Your task to perform on an android device: toggle javascript in the chrome app Image 0: 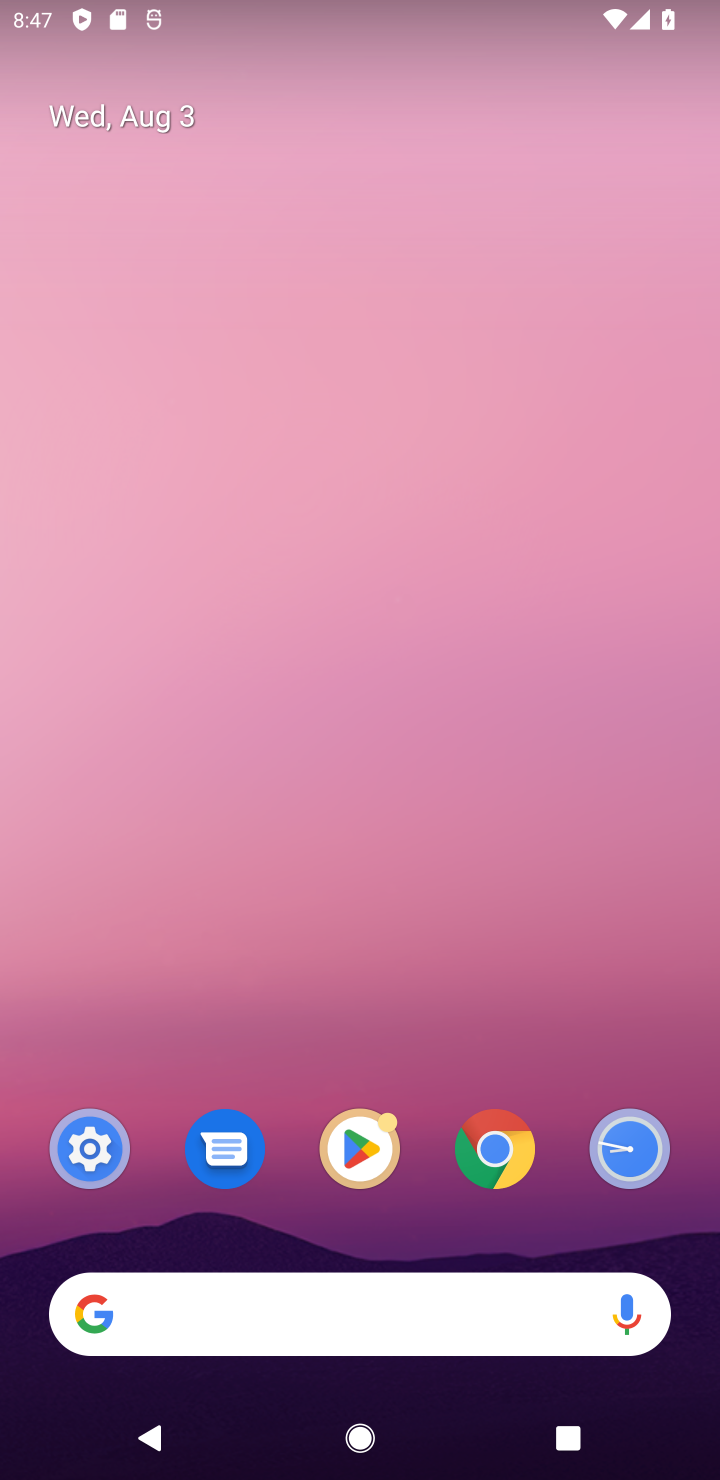
Step 0: click (497, 1173)
Your task to perform on an android device: toggle javascript in the chrome app Image 1: 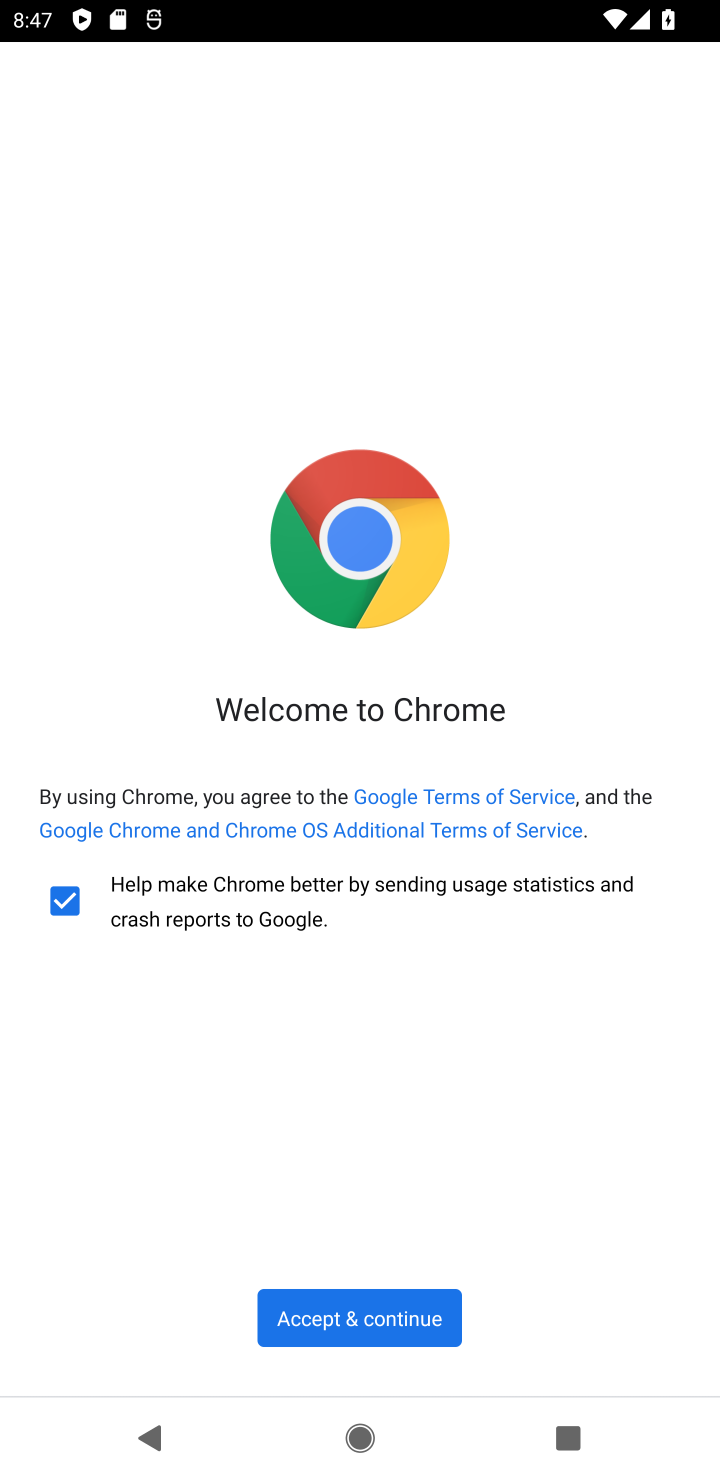
Step 1: click (400, 1313)
Your task to perform on an android device: toggle javascript in the chrome app Image 2: 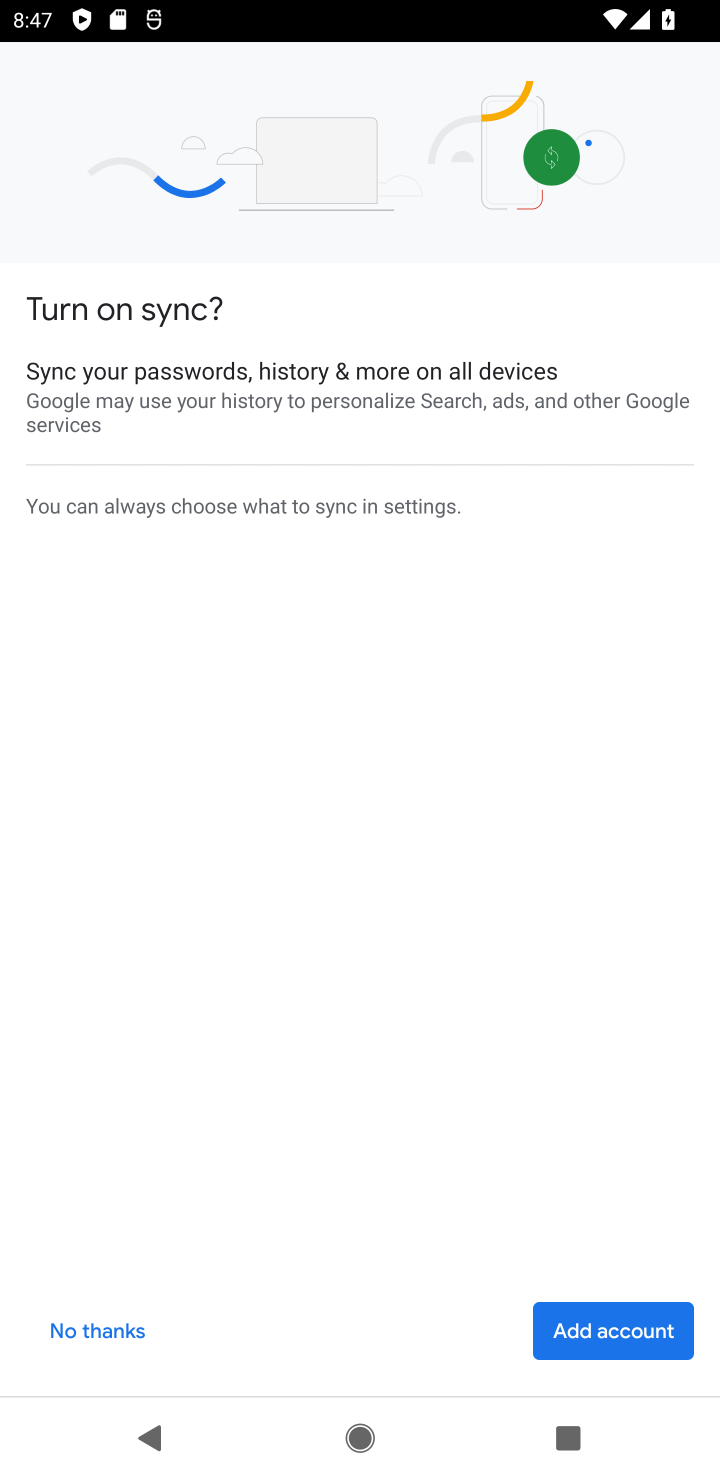
Step 2: click (109, 1332)
Your task to perform on an android device: toggle javascript in the chrome app Image 3: 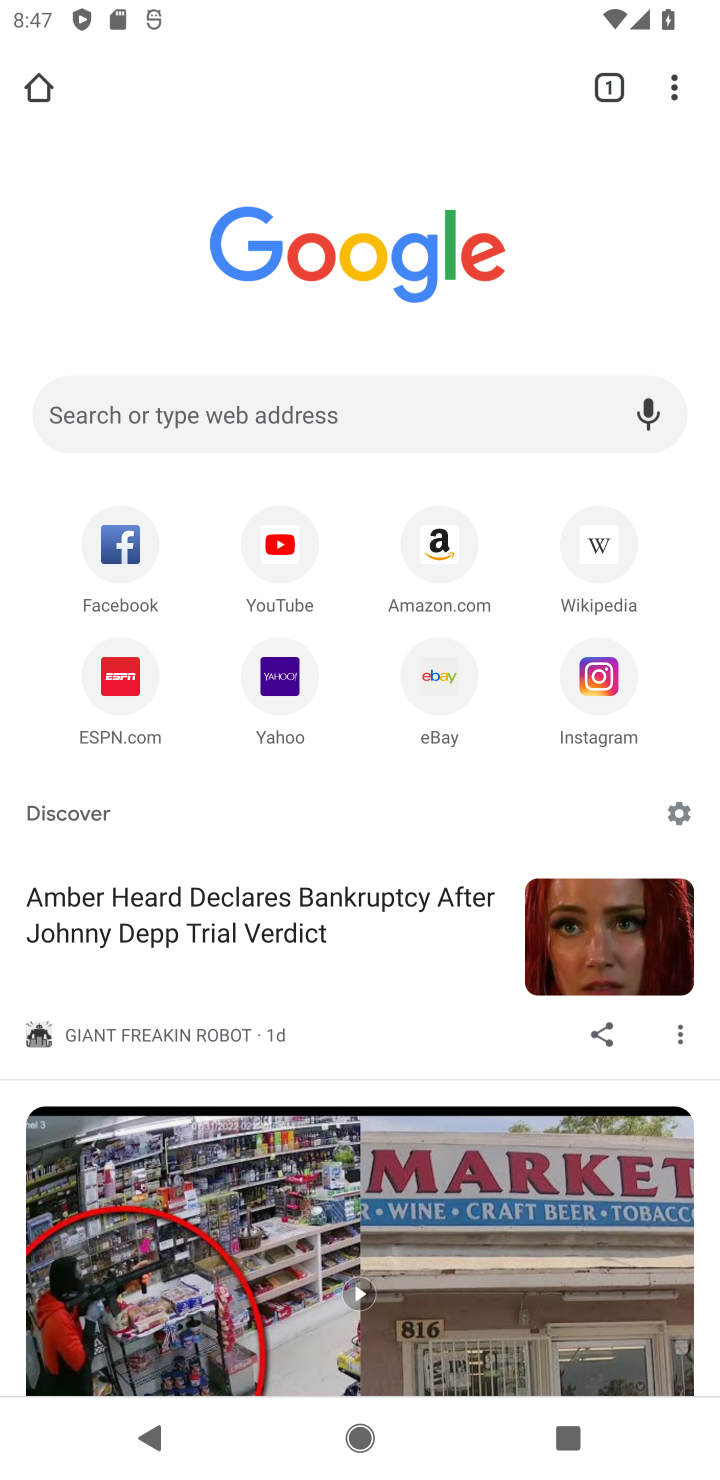
Step 3: click (687, 97)
Your task to perform on an android device: toggle javascript in the chrome app Image 4: 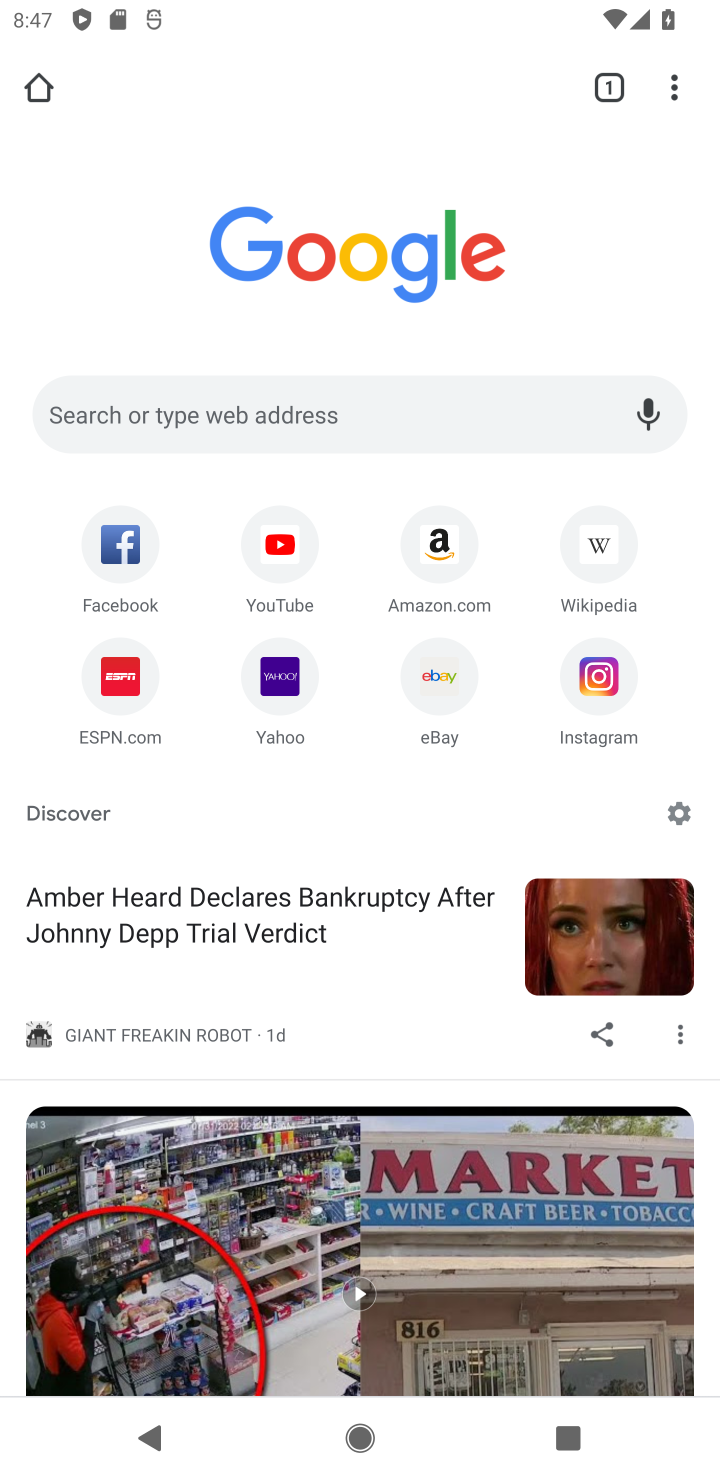
Step 4: click (682, 90)
Your task to perform on an android device: toggle javascript in the chrome app Image 5: 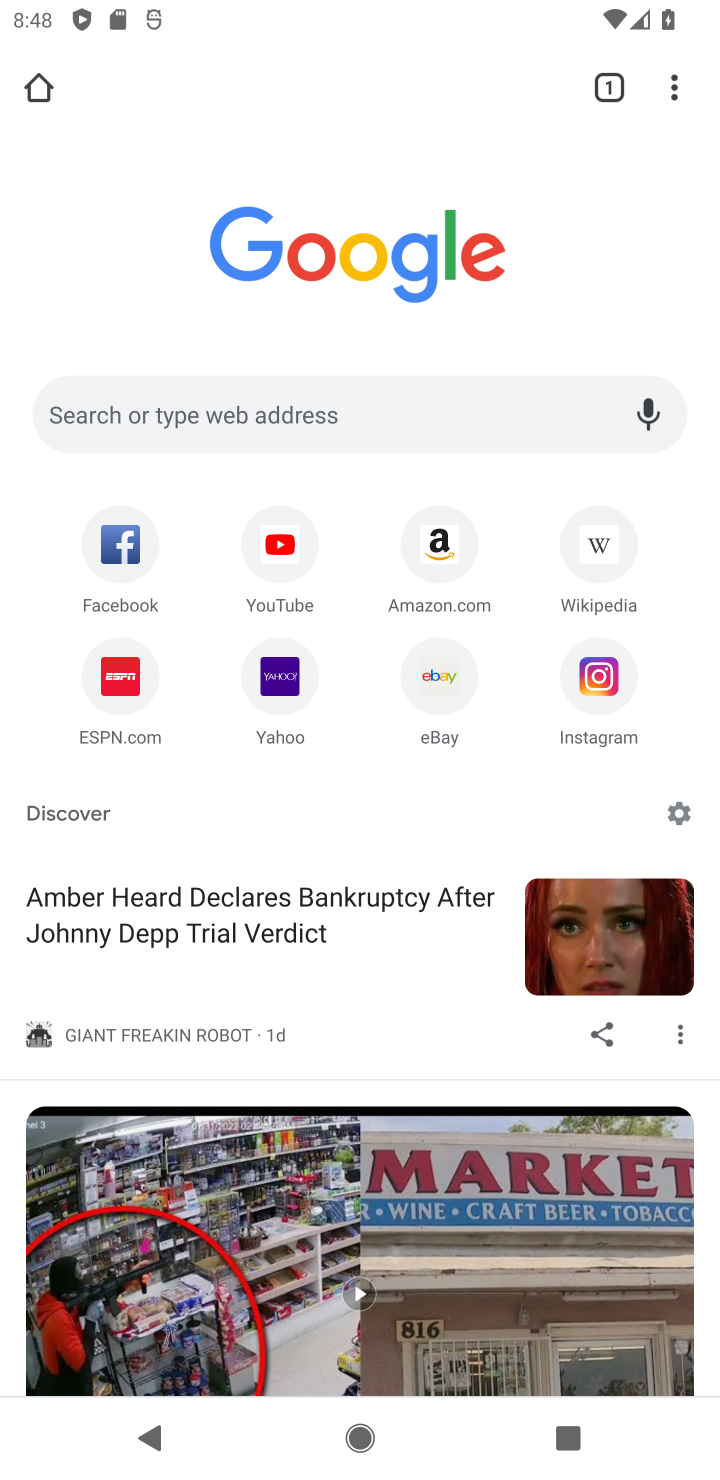
Step 5: click (682, 90)
Your task to perform on an android device: toggle javascript in the chrome app Image 6: 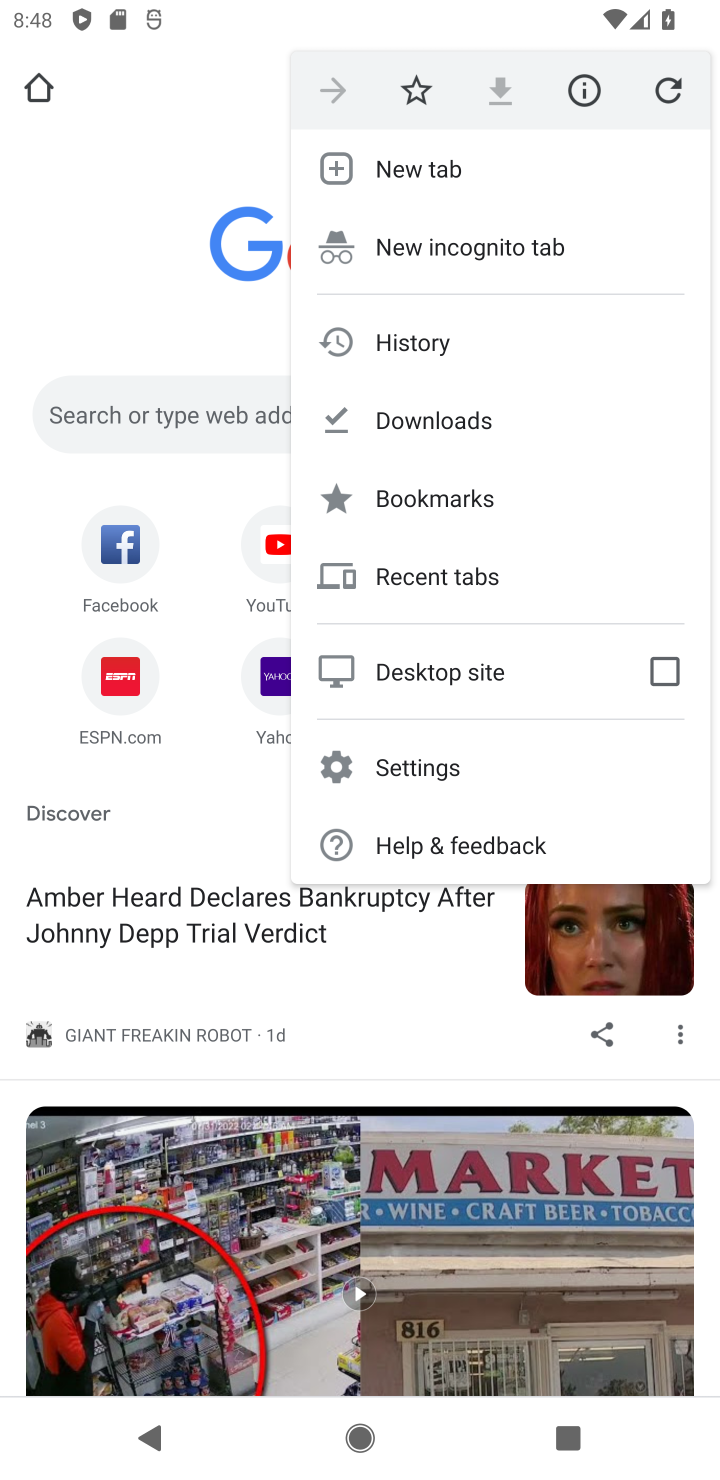
Step 6: click (466, 771)
Your task to perform on an android device: toggle javascript in the chrome app Image 7: 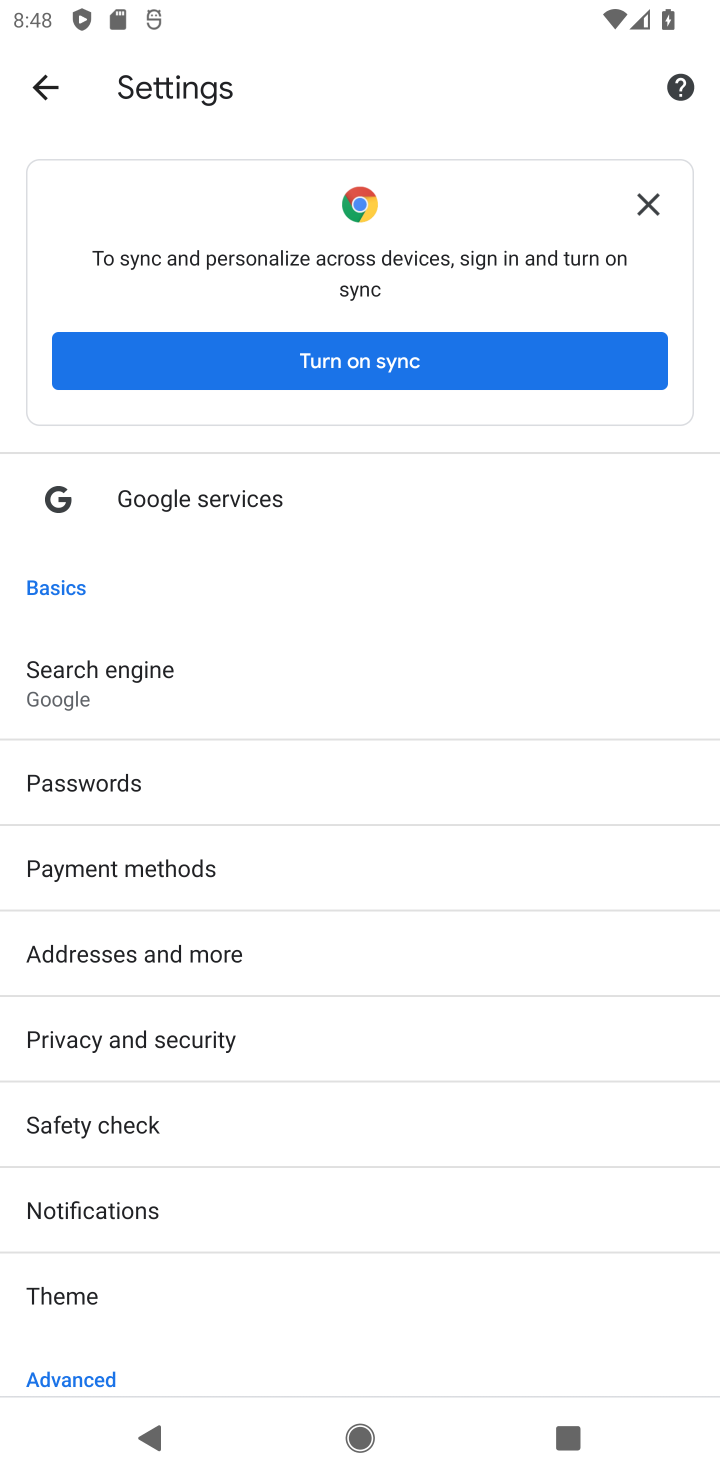
Step 7: drag from (200, 1344) to (90, 497)
Your task to perform on an android device: toggle javascript in the chrome app Image 8: 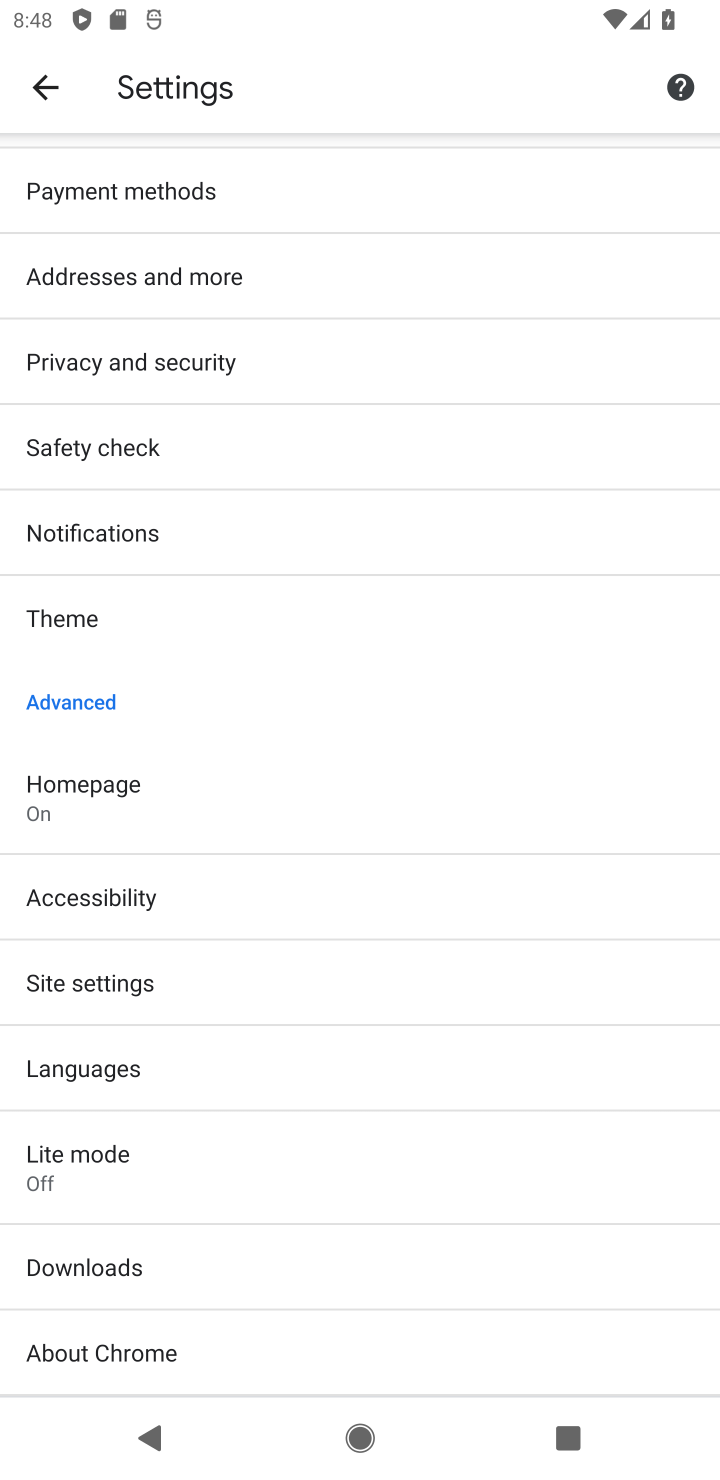
Step 8: click (174, 998)
Your task to perform on an android device: toggle javascript in the chrome app Image 9: 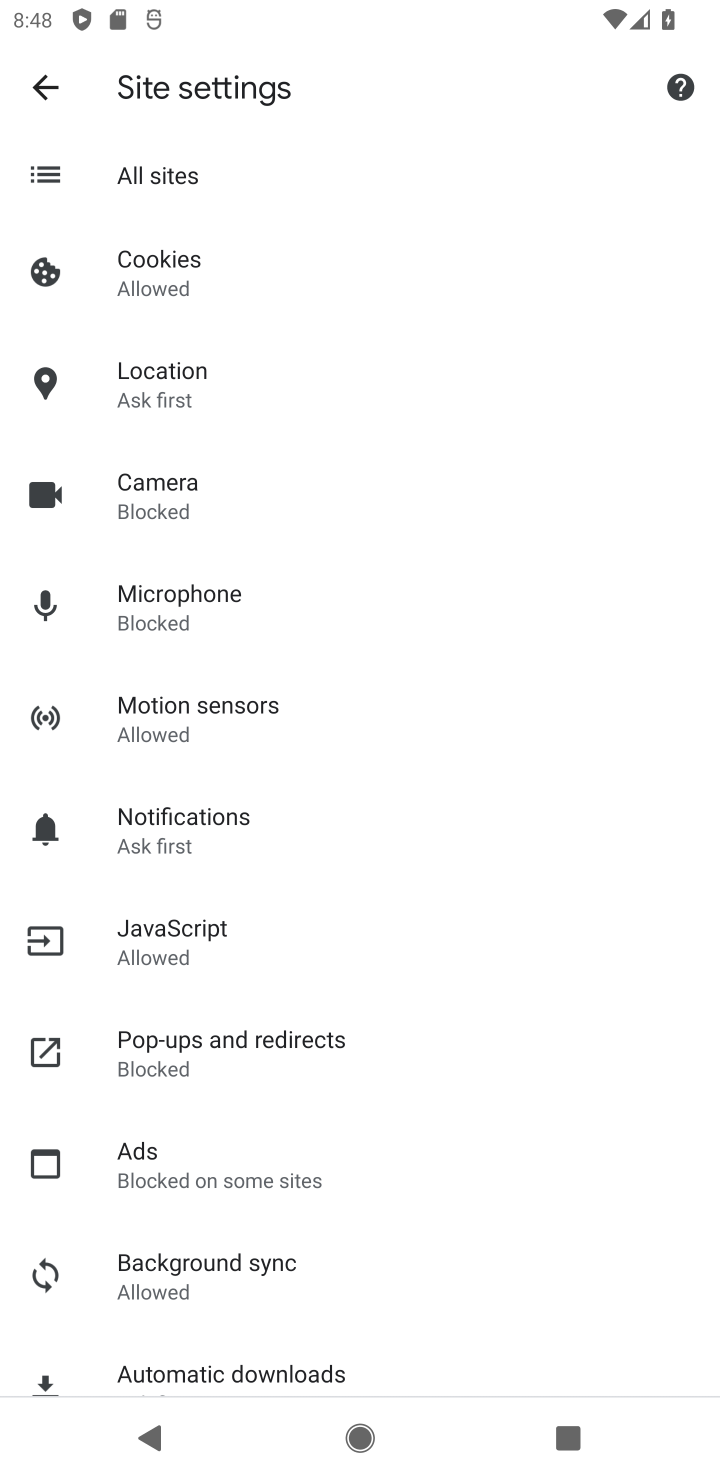
Step 9: click (340, 927)
Your task to perform on an android device: toggle javascript in the chrome app Image 10: 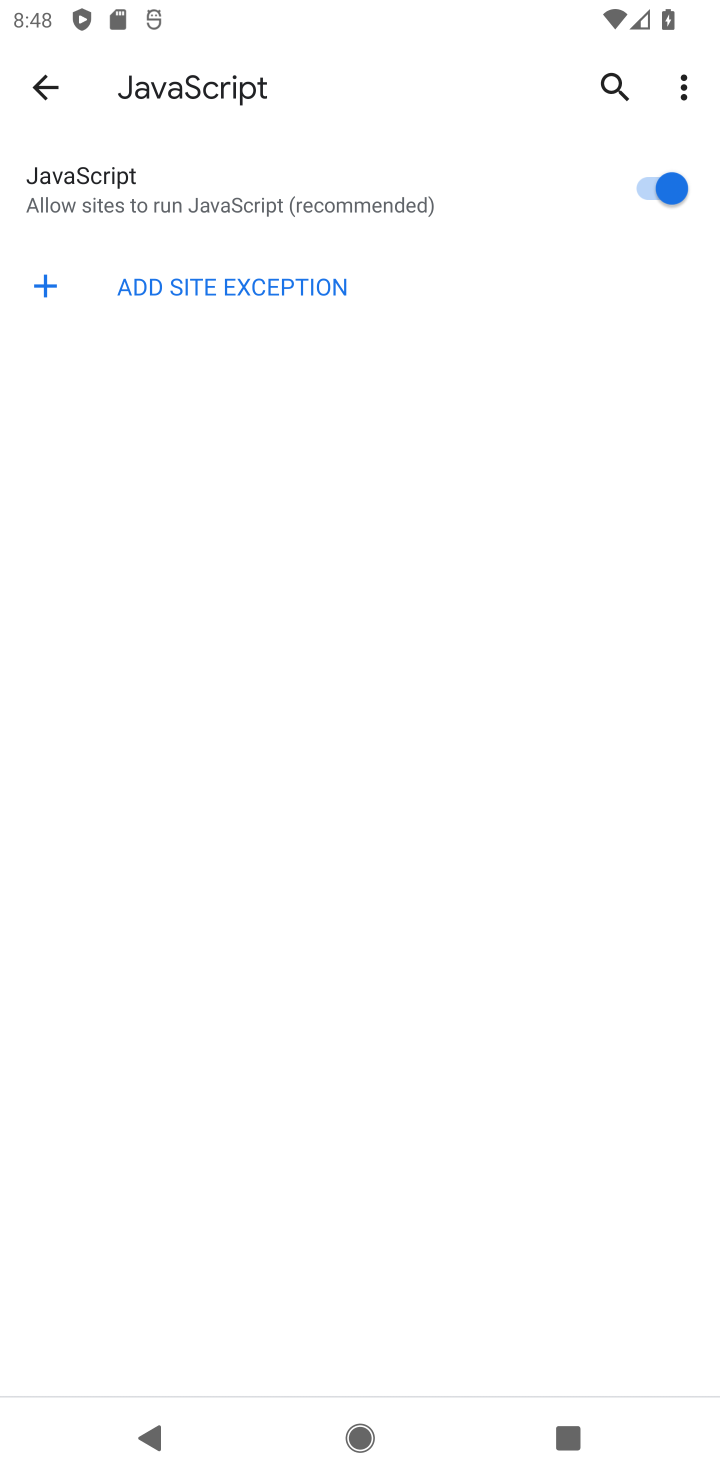
Step 10: click (649, 179)
Your task to perform on an android device: toggle javascript in the chrome app Image 11: 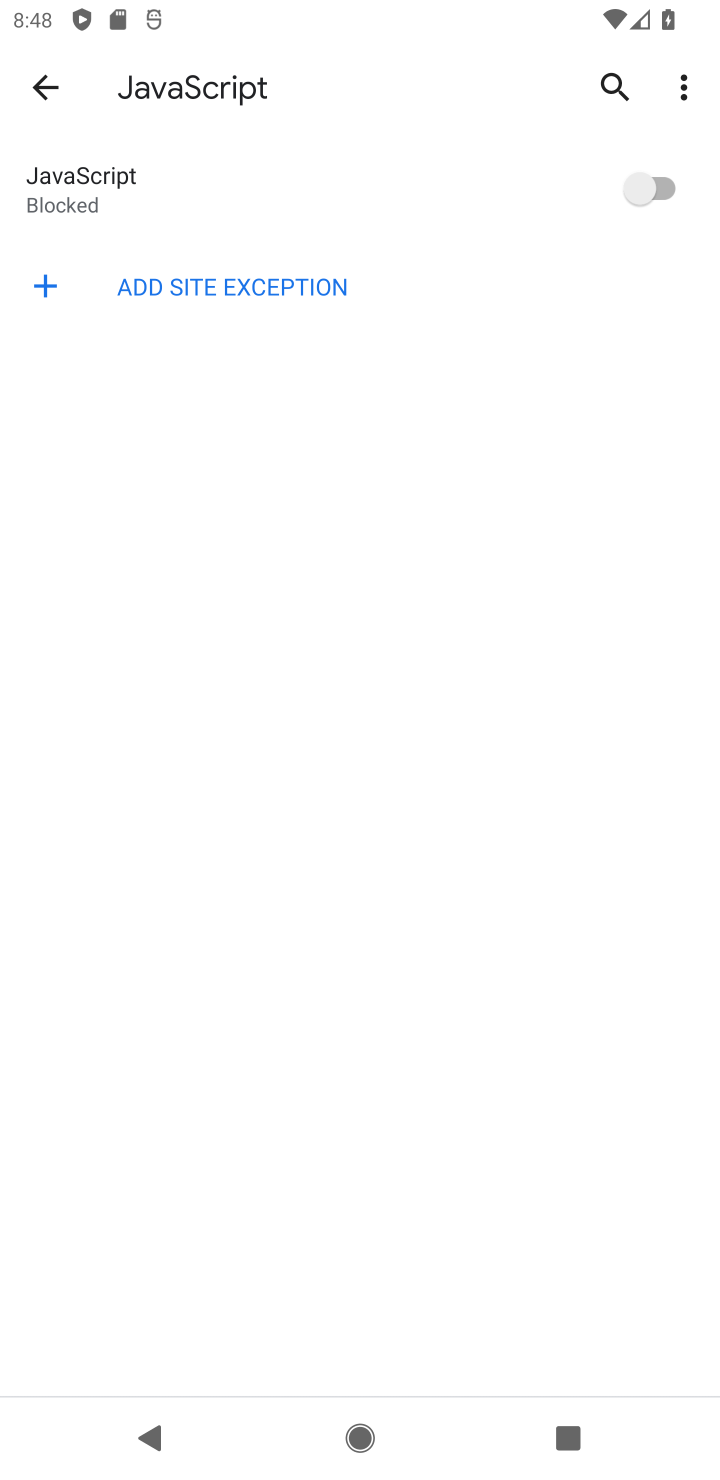
Step 11: task complete